Your task to perform on an android device: Do I have any events this weekend? Image 0: 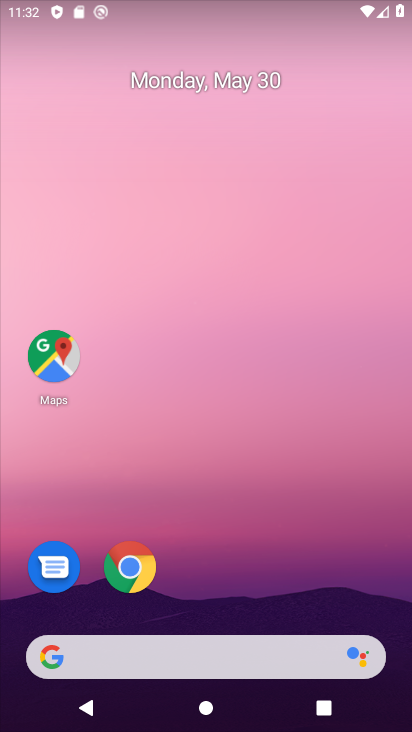
Step 0: drag from (261, 557) to (163, 4)
Your task to perform on an android device: Do I have any events this weekend? Image 1: 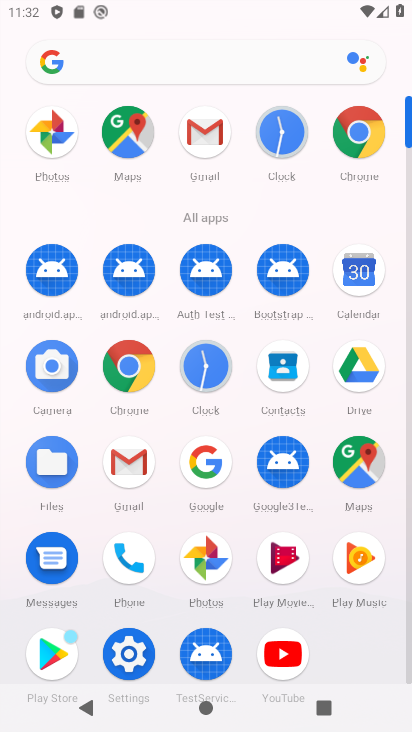
Step 1: drag from (11, 460) to (13, 193)
Your task to perform on an android device: Do I have any events this weekend? Image 2: 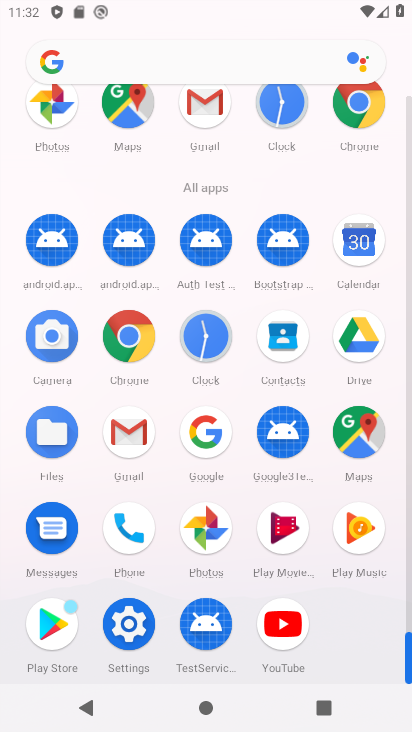
Step 2: drag from (7, 564) to (7, 284)
Your task to perform on an android device: Do I have any events this weekend? Image 3: 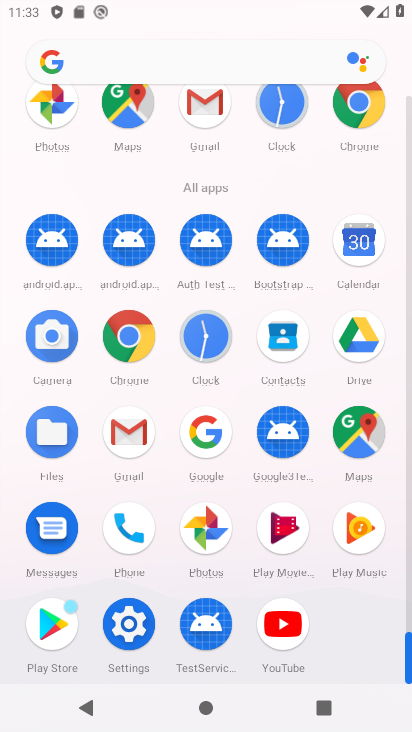
Step 3: click (362, 238)
Your task to perform on an android device: Do I have any events this weekend? Image 4: 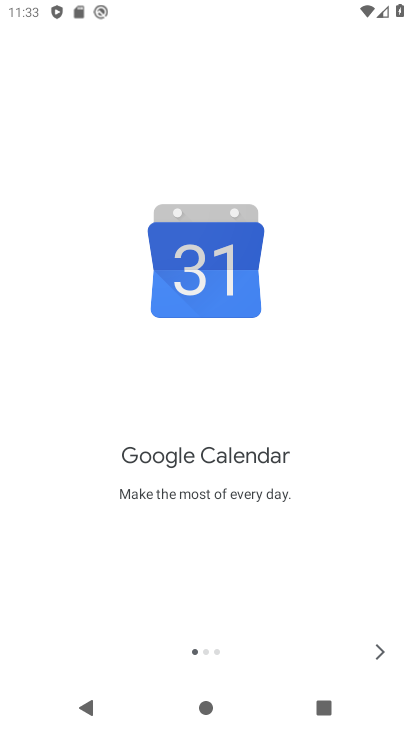
Step 4: click (376, 649)
Your task to perform on an android device: Do I have any events this weekend? Image 5: 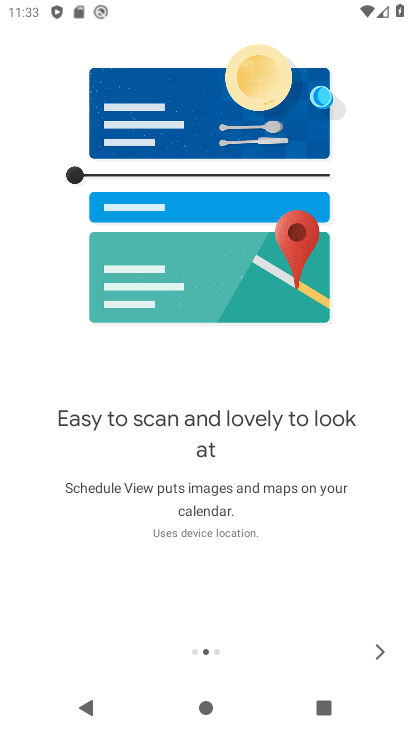
Step 5: click (376, 649)
Your task to perform on an android device: Do I have any events this weekend? Image 6: 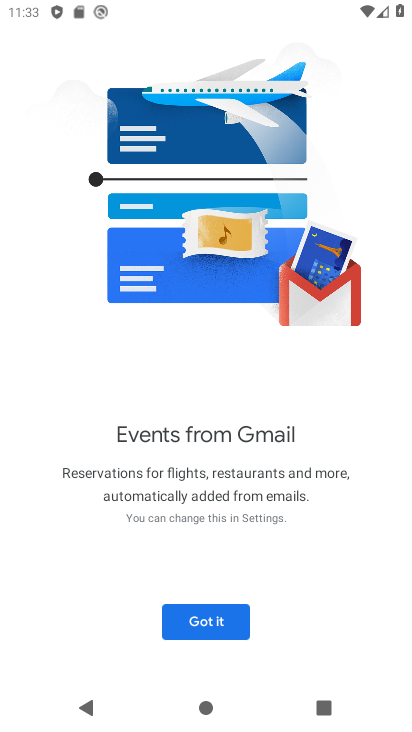
Step 6: click (232, 606)
Your task to perform on an android device: Do I have any events this weekend? Image 7: 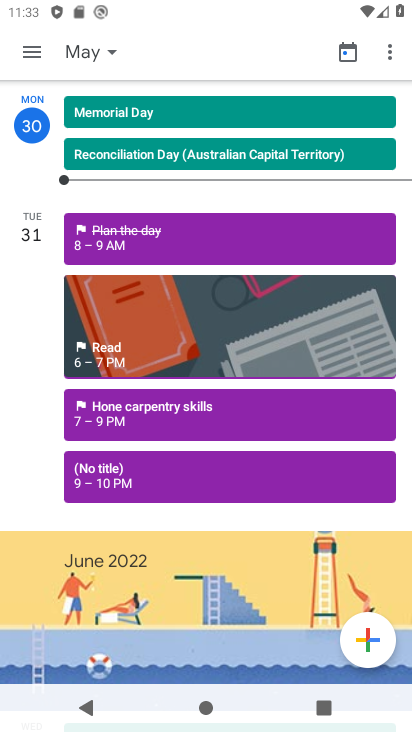
Step 7: click (33, 44)
Your task to perform on an android device: Do I have any events this weekend? Image 8: 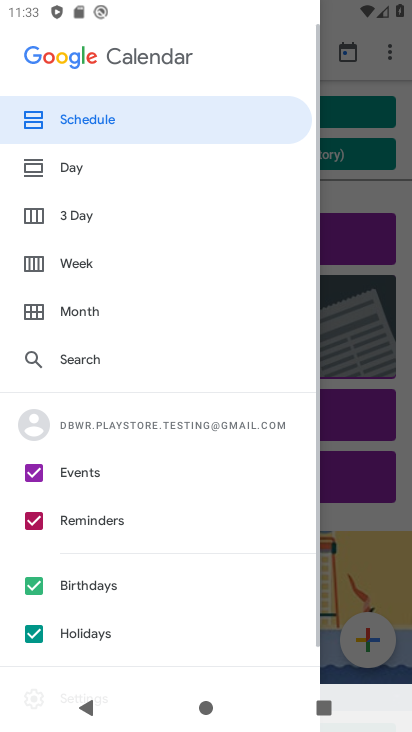
Step 8: click (83, 265)
Your task to perform on an android device: Do I have any events this weekend? Image 9: 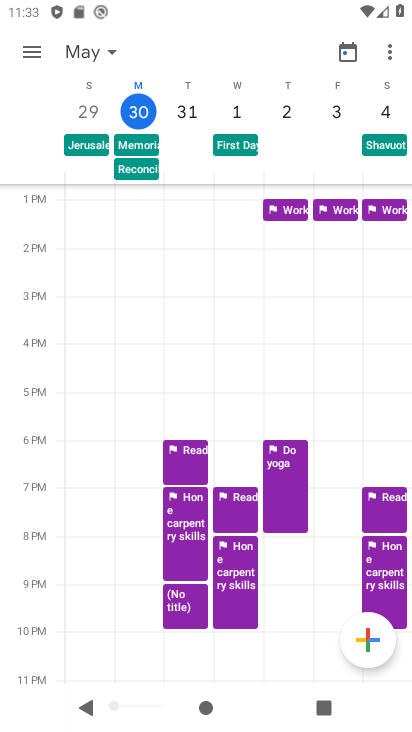
Step 9: task complete